Your task to perform on an android device: set the stopwatch Image 0: 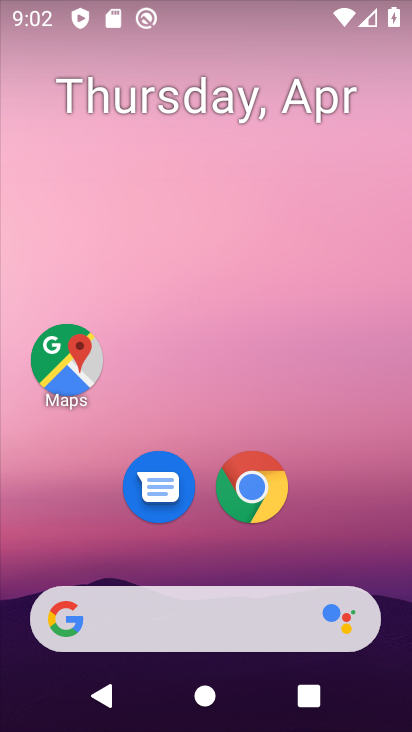
Step 0: press home button
Your task to perform on an android device: set the stopwatch Image 1: 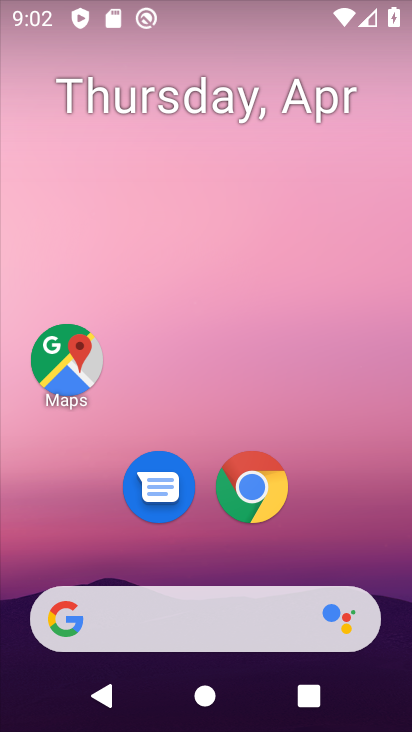
Step 1: drag from (354, 486) to (368, 146)
Your task to perform on an android device: set the stopwatch Image 2: 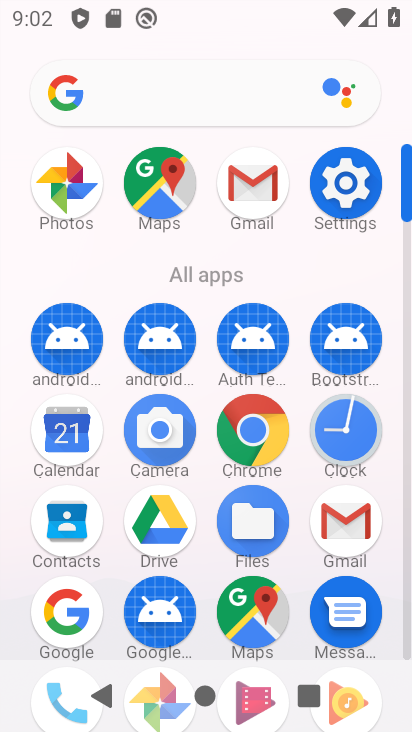
Step 2: click (361, 425)
Your task to perform on an android device: set the stopwatch Image 3: 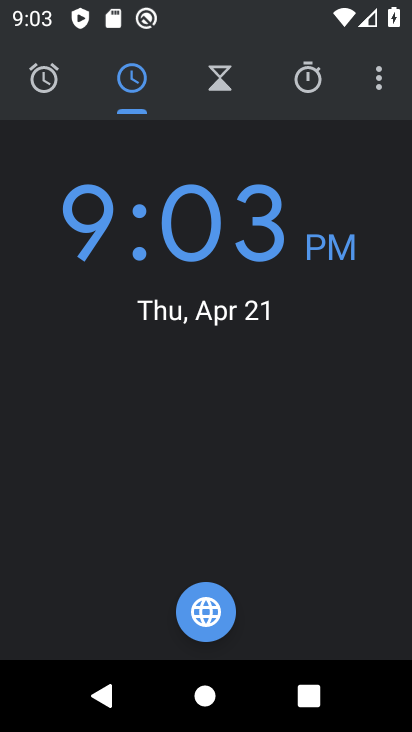
Step 3: click (312, 88)
Your task to perform on an android device: set the stopwatch Image 4: 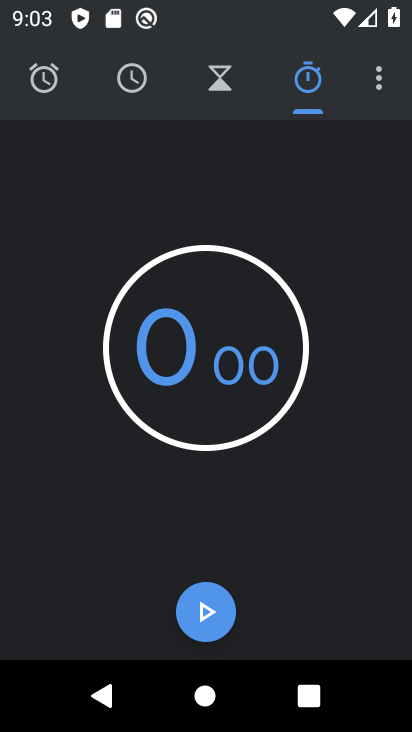
Step 4: click (197, 611)
Your task to perform on an android device: set the stopwatch Image 5: 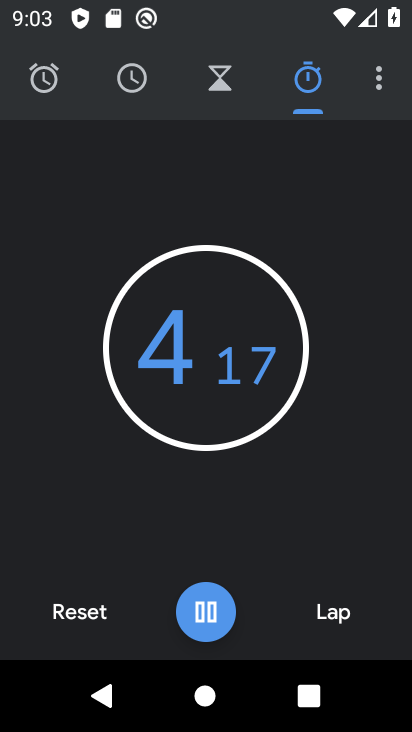
Step 5: click (204, 618)
Your task to perform on an android device: set the stopwatch Image 6: 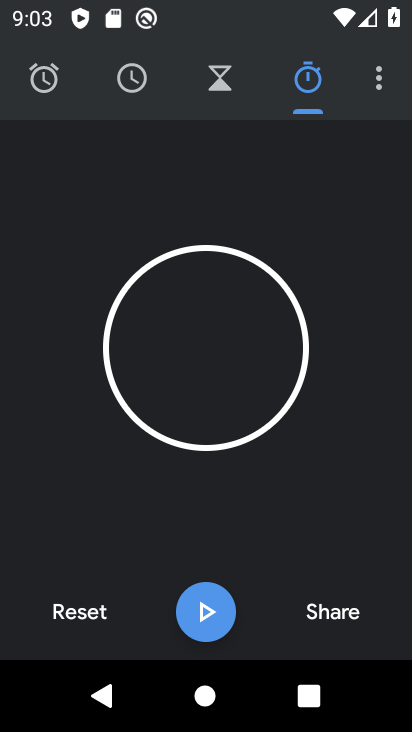
Step 6: task complete